Your task to perform on an android device: turn on data saver in the chrome app Image 0: 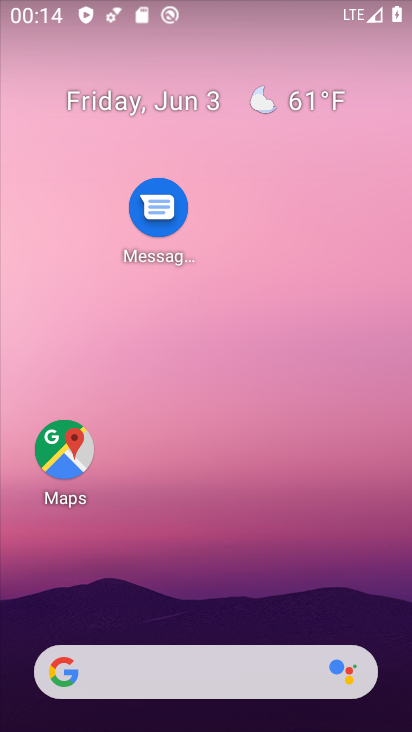
Step 0: drag from (175, 628) to (149, 5)
Your task to perform on an android device: turn on data saver in the chrome app Image 1: 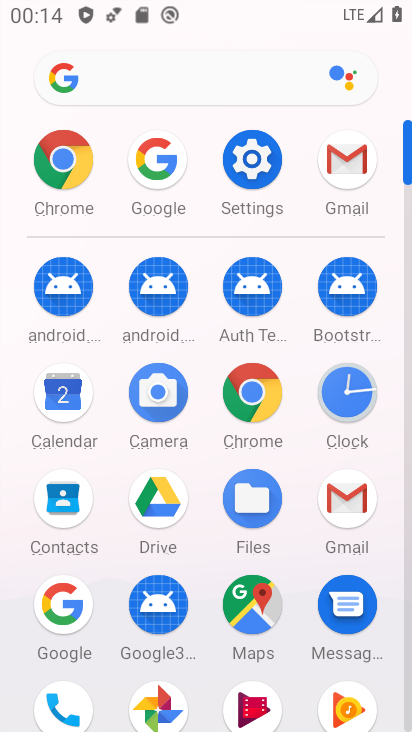
Step 1: click (245, 414)
Your task to perform on an android device: turn on data saver in the chrome app Image 2: 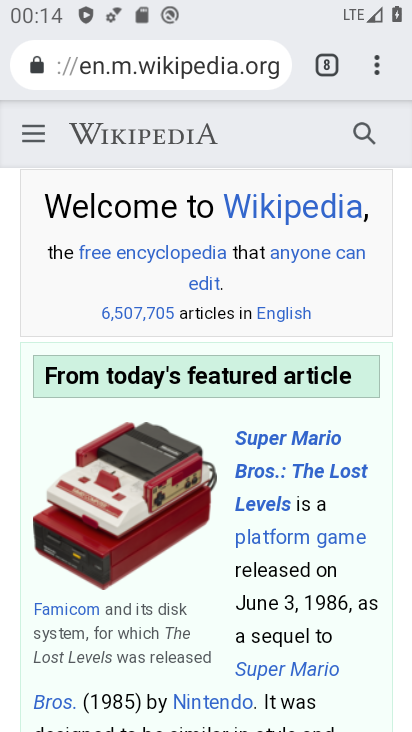
Step 2: click (382, 58)
Your task to perform on an android device: turn on data saver in the chrome app Image 3: 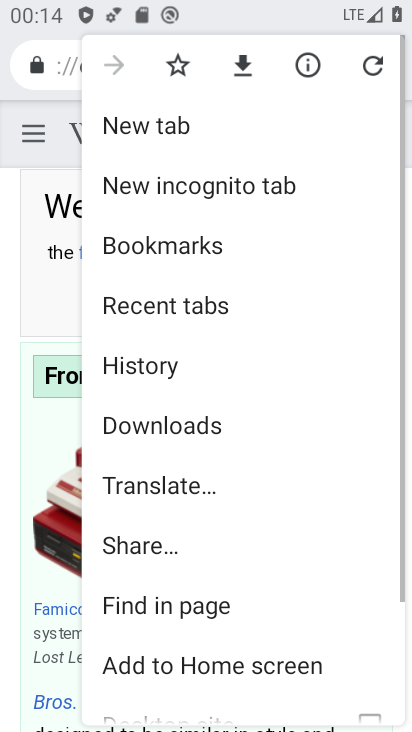
Step 3: drag from (251, 613) to (186, 14)
Your task to perform on an android device: turn on data saver in the chrome app Image 4: 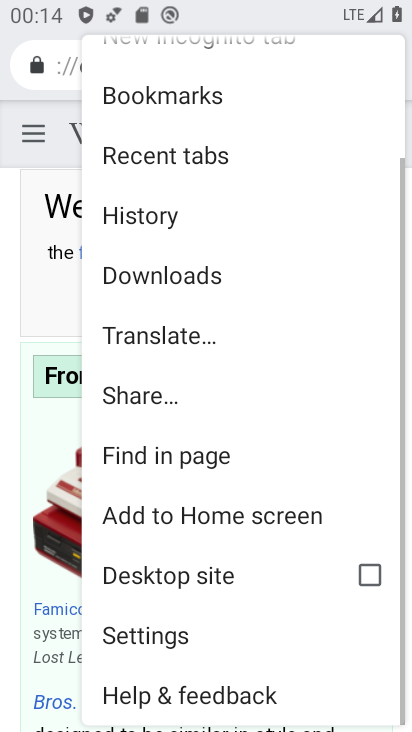
Step 4: click (162, 626)
Your task to perform on an android device: turn on data saver in the chrome app Image 5: 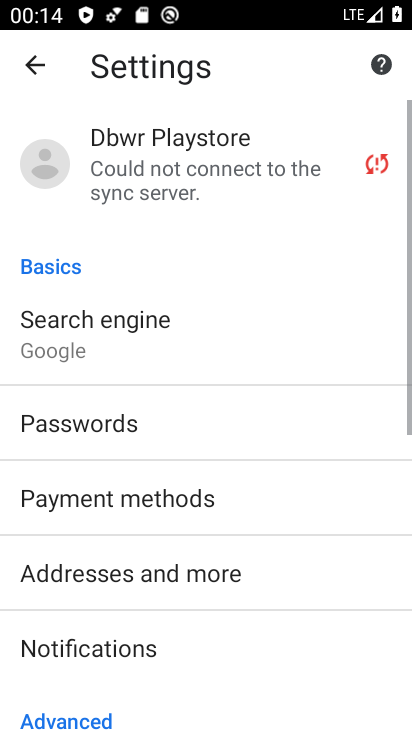
Step 5: drag from (186, 601) to (109, 17)
Your task to perform on an android device: turn on data saver in the chrome app Image 6: 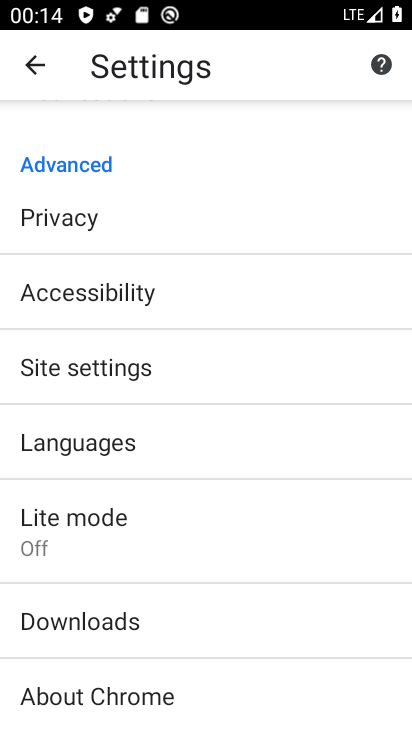
Step 6: click (84, 540)
Your task to perform on an android device: turn on data saver in the chrome app Image 7: 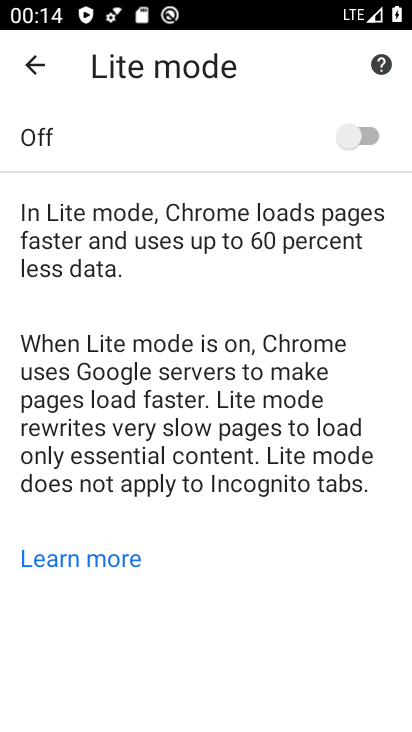
Step 7: click (354, 134)
Your task to perform on an android device: turn on data saver in the chrome app Image 8: 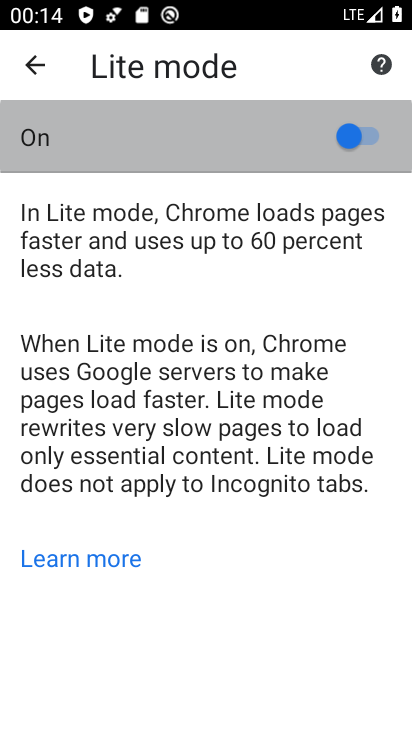
Step 8: task complete